Your task to perform on an android device: Search for Mexican restaurants on Maps Image 0: 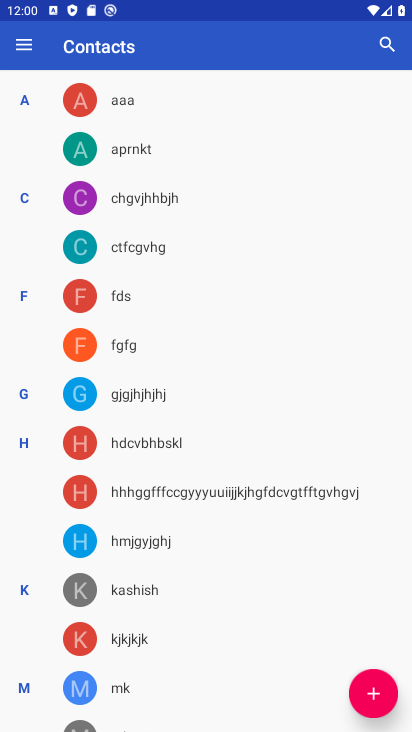
Step 0: press home button
Your task to perform on an android device: Search for Mexican restaurants on Maps Image 1: 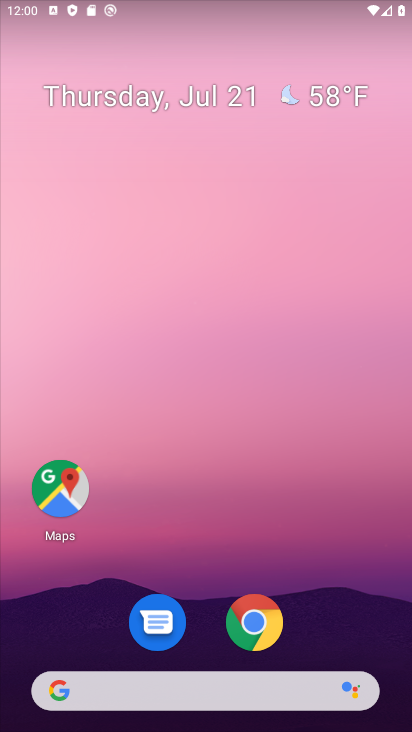
Step 1: click (57, 484)
Your task to perform on an android device: Search for Mexican restaurants on Maps Image 2: 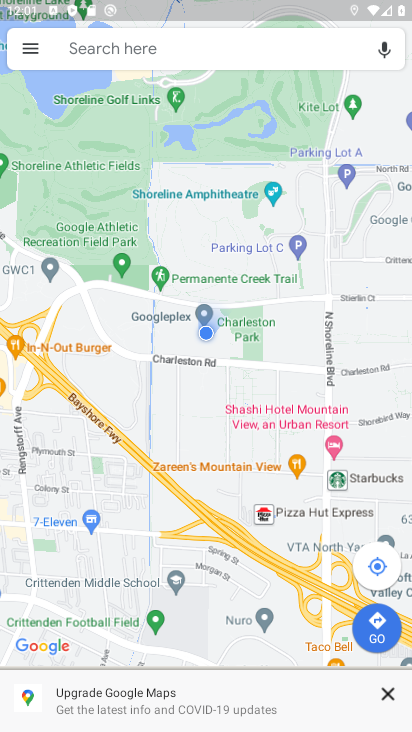
Step 2: click (84, 49)
Your task to perform on an android device: Search for Mexican restaurants on Maps Image 3: 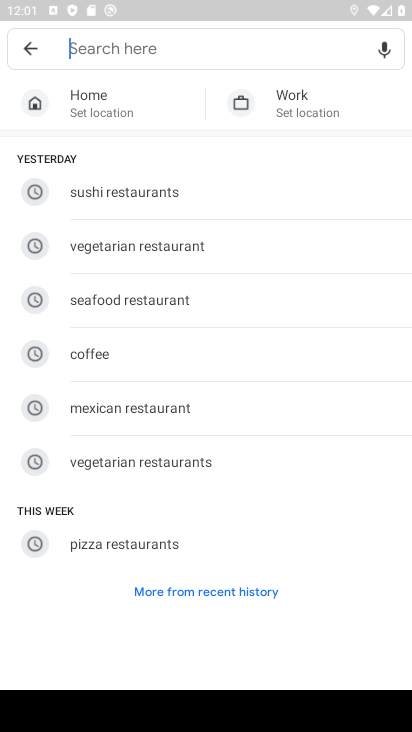
Step 3: click (142, 388)
Your task to perform on an android device: Search for Mexican restaurants on Maps Image 4: 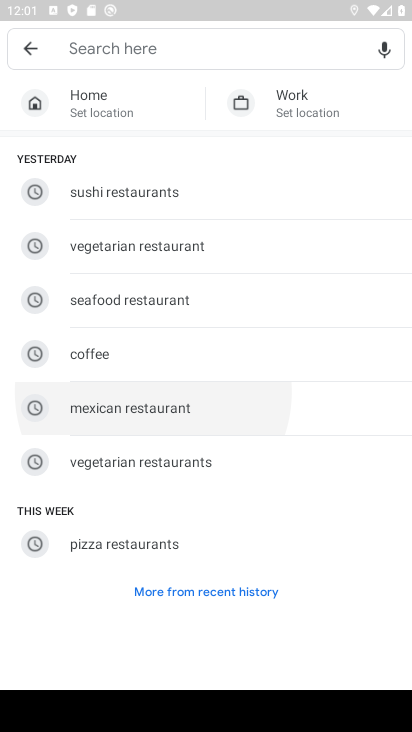
Step 4: click (131, 405)
Your task to perform on an android device: Search for Mexican restaurants on Maps Image 5: 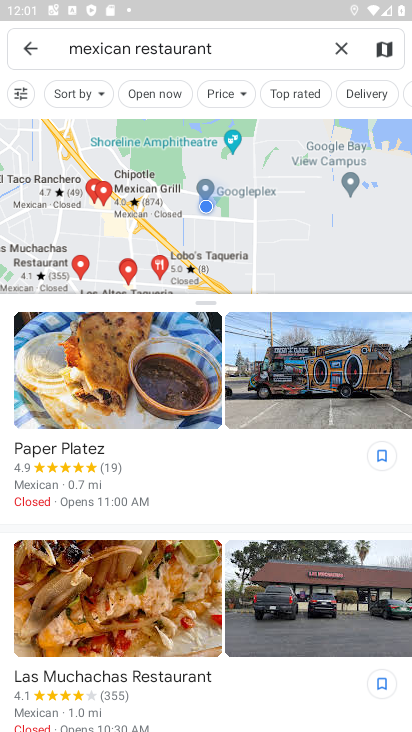
Step 5: task complete